Your task to perform on an android device: Add asus zenbook to the cart on newegg.com Image 0: 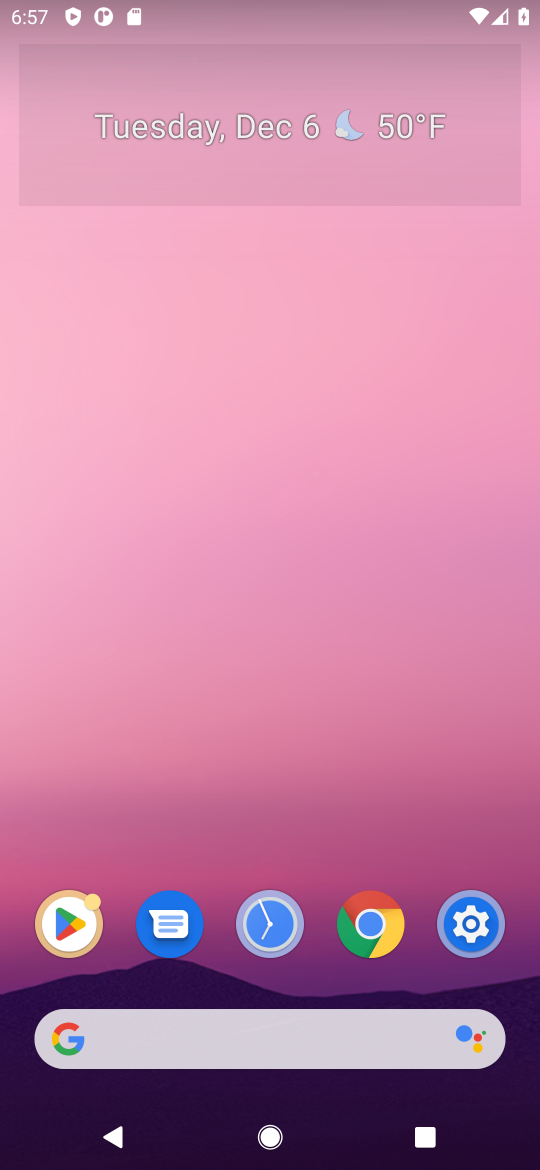
Step 0: click (240, 1008)
Your task to perform on an android device: Add asus zenbook to the cart on newegg.com Image 1: 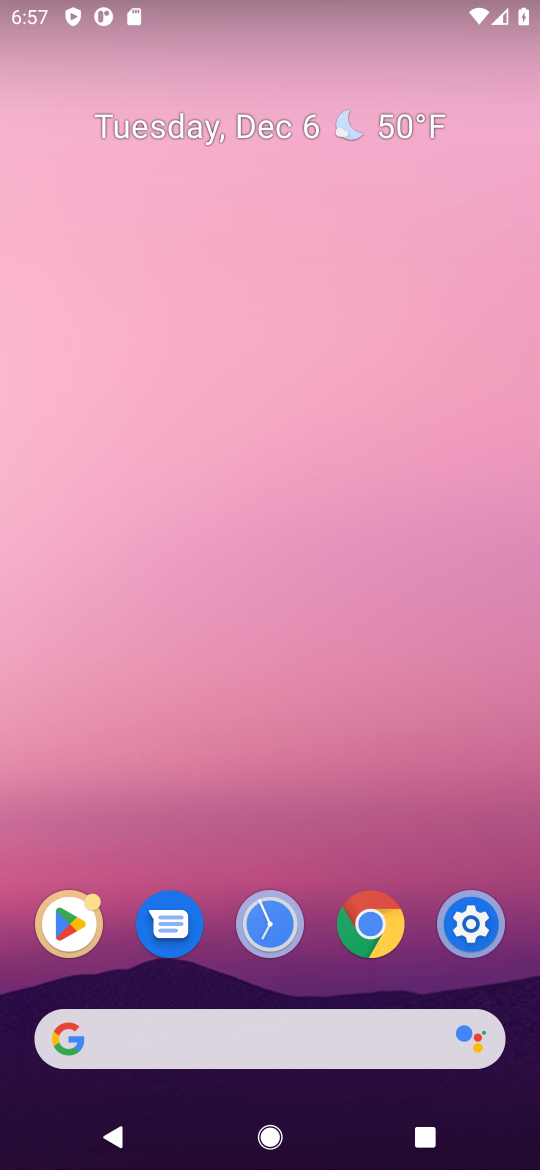
Step 1: click (243, 1025)
Your task to perform on an android device: Add asus zenbook to the cart on newegg.com Image 2: 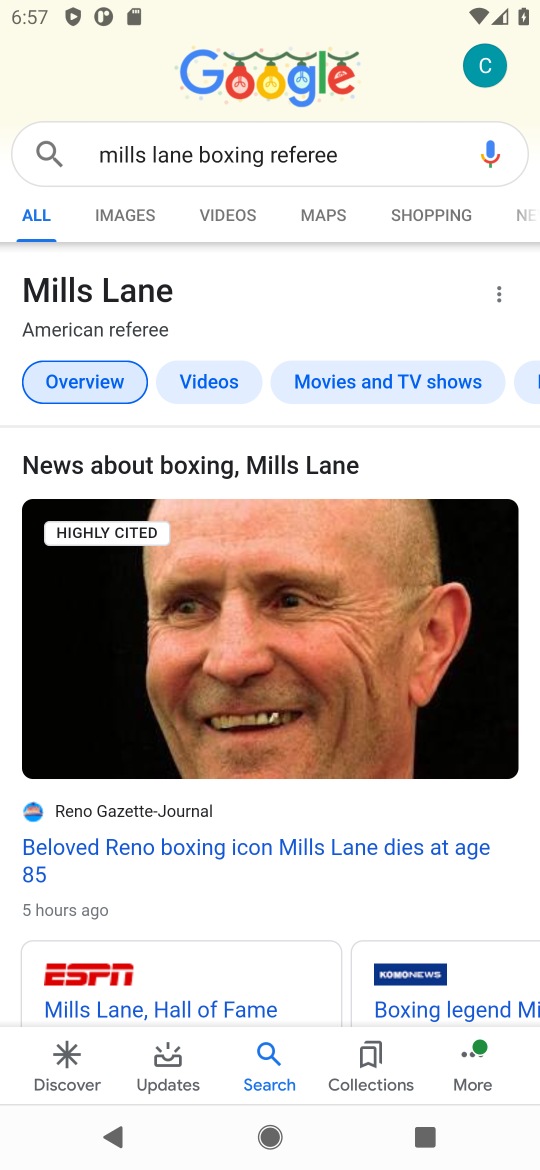
Step 2: type "newegg"
Your task to perform on an android device: Add asus zenbook to the cart on newegg.com Image 3: 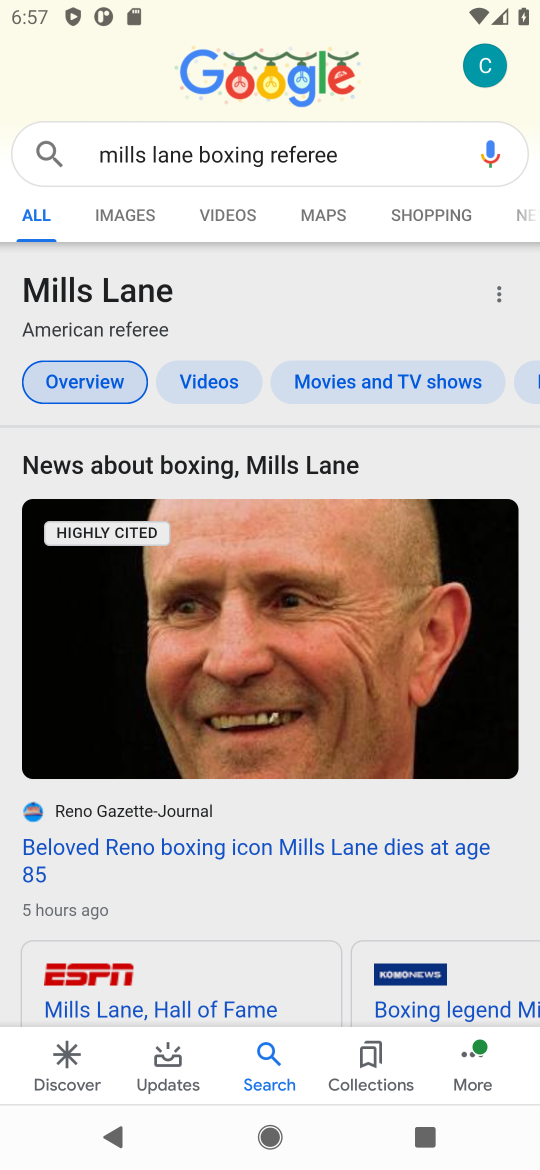
Step 3: click (433, 141)
Your task to perform on an android device: Add asus zenbook to the cart on newegg.com Image 4: 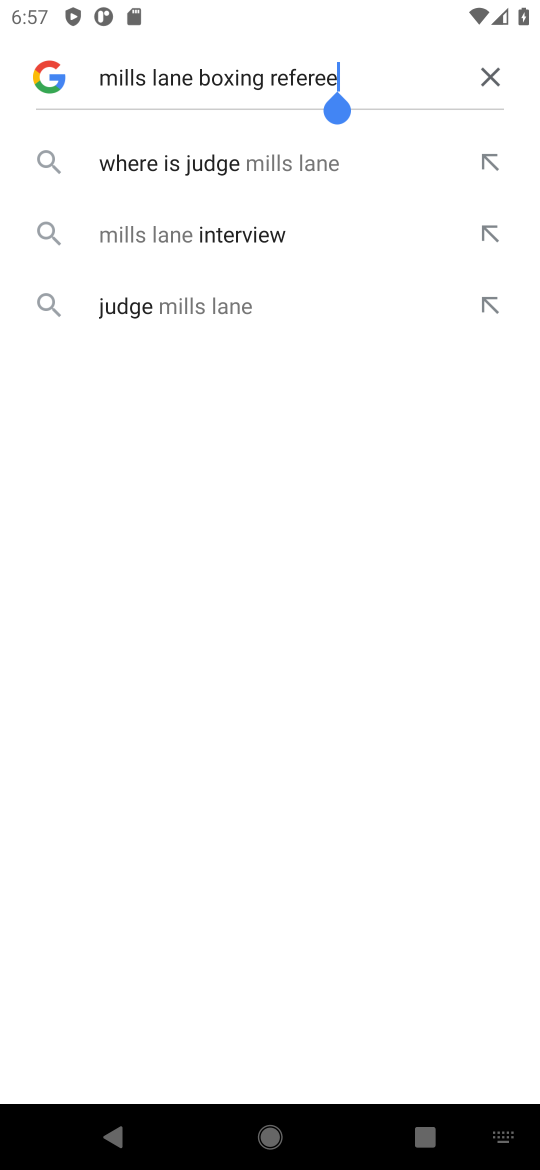
Step 4: click (498, 76)
Your task to perform on an android device: Add asus zenbook to the cart on newegg.com Image 5: 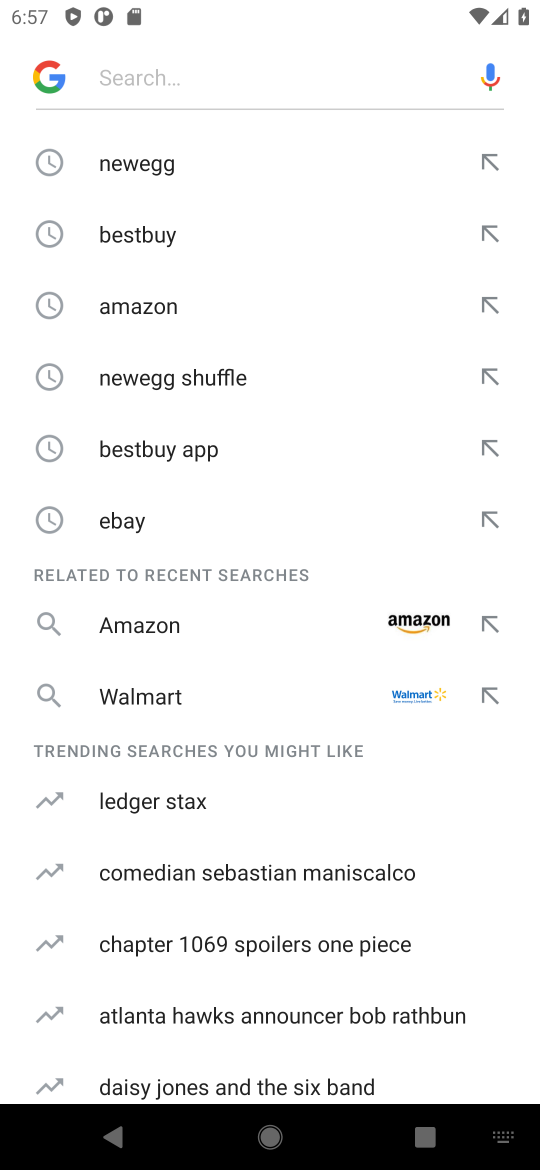
Step 5: type "newegg"
Your task to perform on an android device: Add asus zenbook to the cart on newegg.com Image 6: 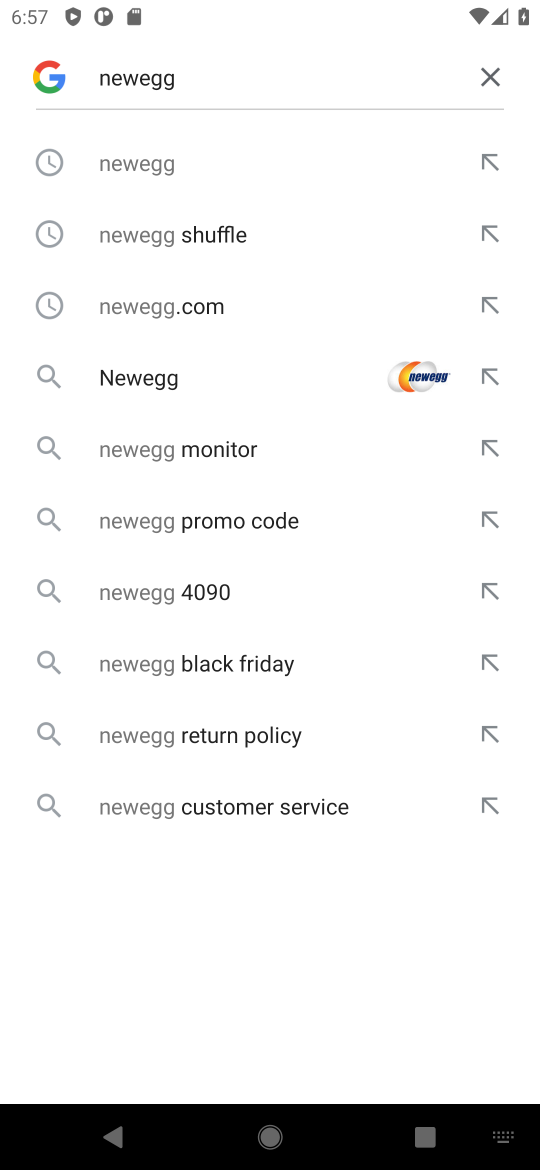
Step 6: click (210, 159)
Your task to perform on an android device: Add asus zenbook to the cart on newegg.com Image 7: 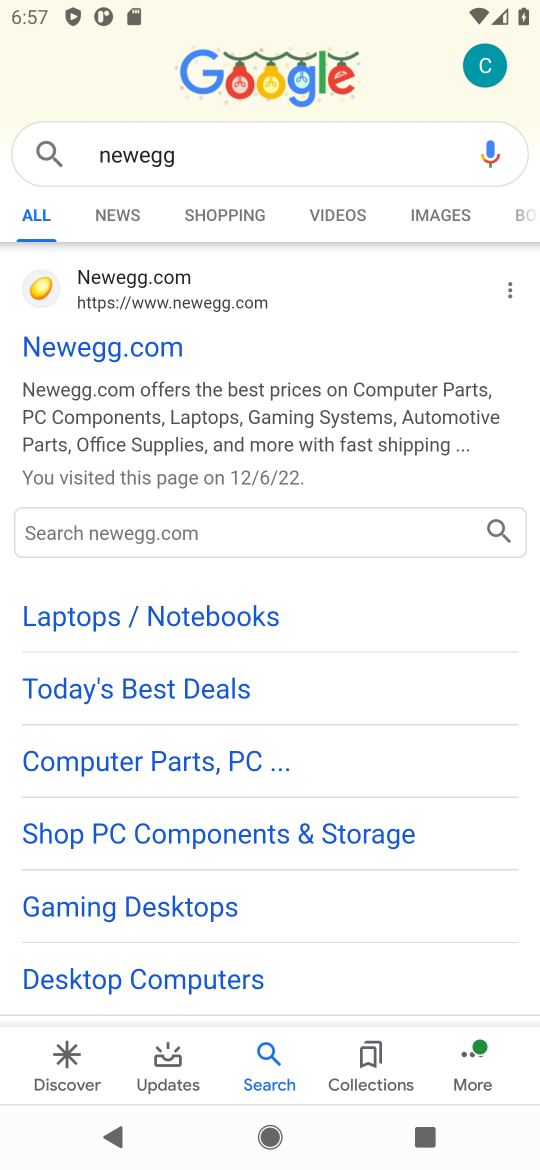
Step 7: click (96, 362)
Your task to perform on an android device: Add asus zenbook to the cart on newegg.com Image 8: 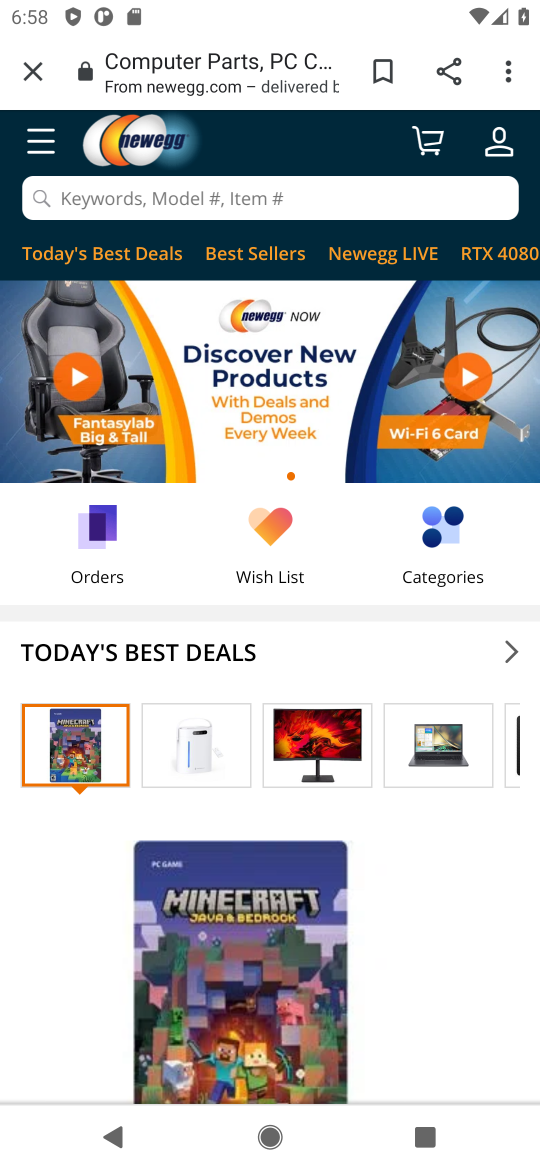
Step 8: click (102, 205)
Your task to perform on an android device: Add asus zenbook to the cart on newegg.com Image 9: 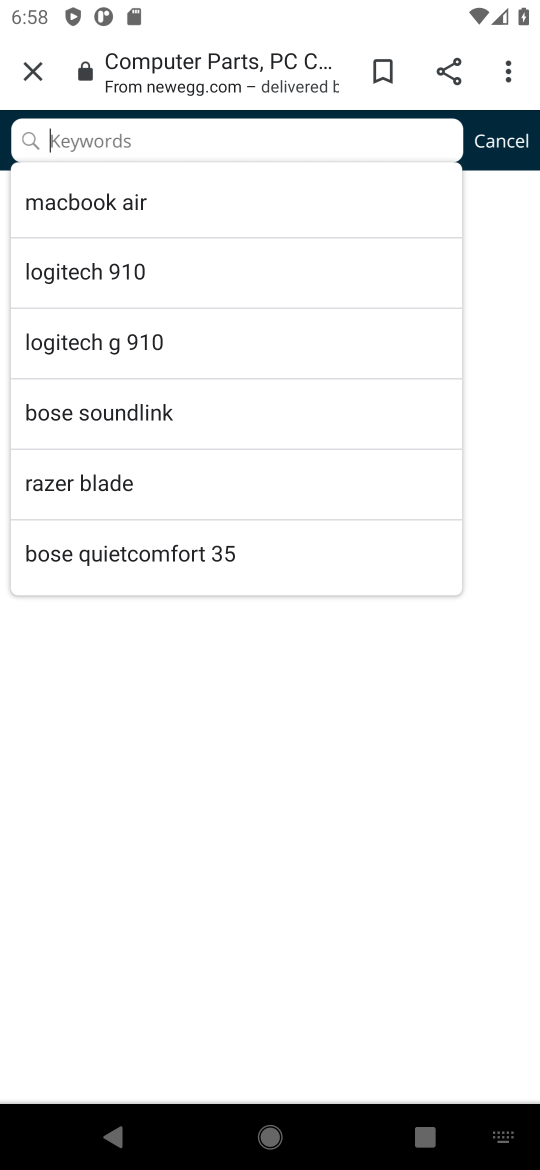
Step 9: type "asus zenbook"
Your task to perform on an android device: Add asus zenbook to the cart on newegg.com Image 10: 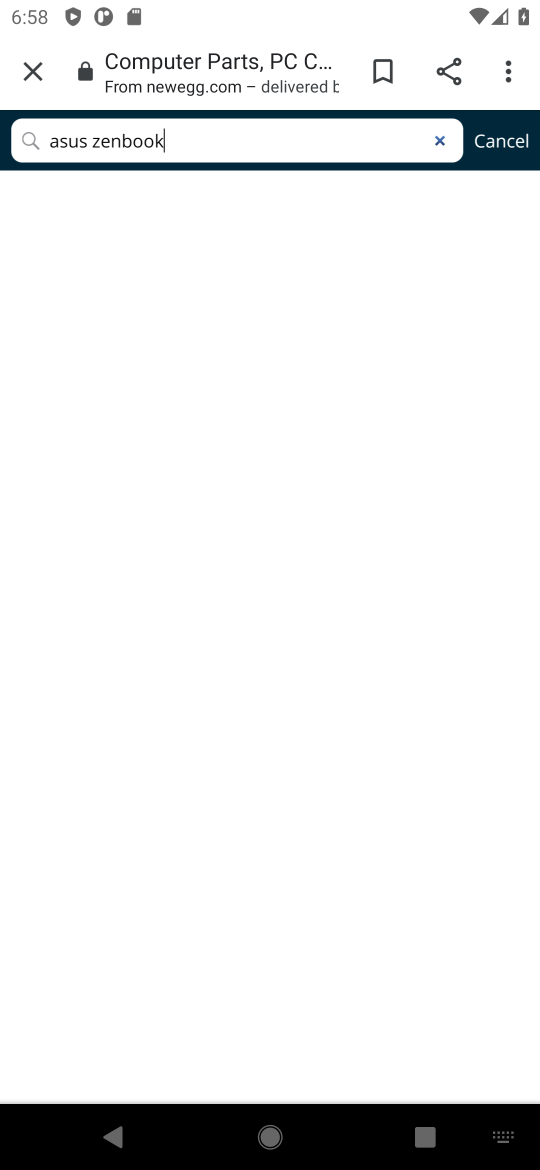
Step 10: task complete